Your task to perform on an android device: turn on the 12-hour format for clock Image 0: 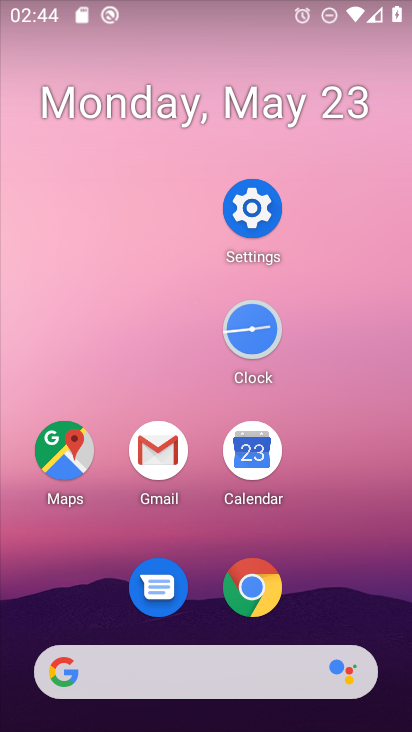
Step 0: drag from (358, 618) to (297, 282)
Your task to perform on an android device: turn on the 12-hour format for clock Image 1: 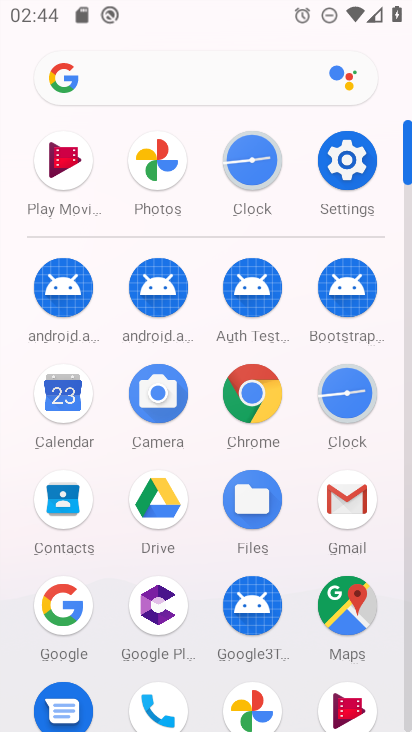
Step 1: click (234, 153)
Your task to perform on an android device: turn on the 12-hour format for clock Image 2: 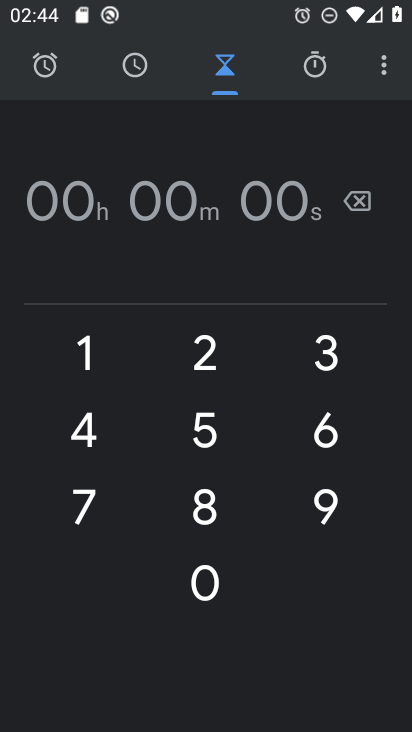
Step 2: click (376, 59)
Your task to perform on an android device: turn on the 12-hour format for clock Image 3: 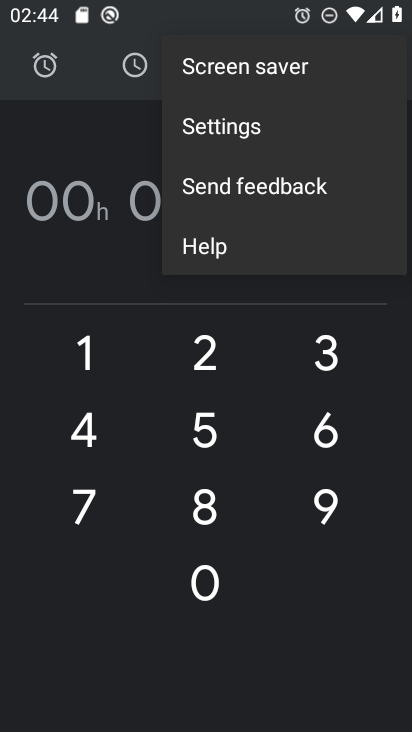
Step 3: click (239, 145)
Your task to perform on an android device: turn on the 12-hour format for clock Image 4: 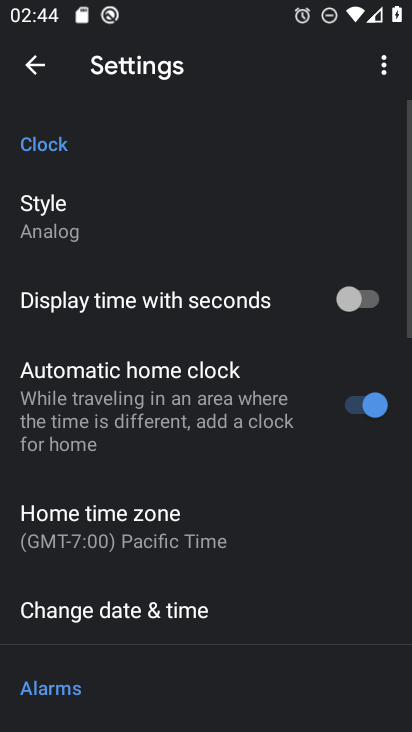
Step 4: click (129, 638)
Your task to perform on an android device: turn on the 12-hour format for clock Image 5: 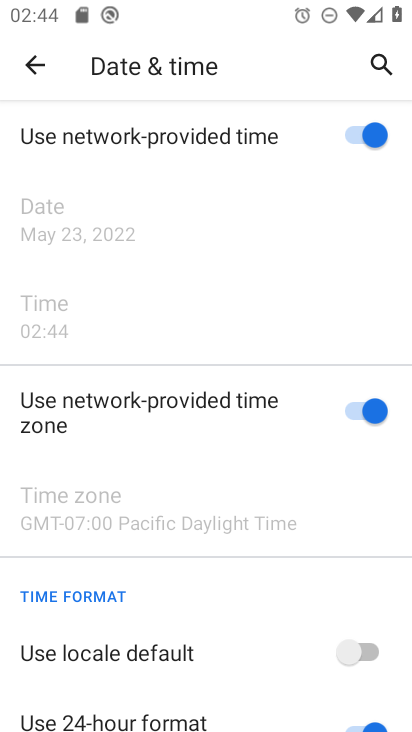
Step 5: drag from (288, 631) to (291, 249)
Your task to perform on an android device: turn on the 12-hour format for clock Image 6: 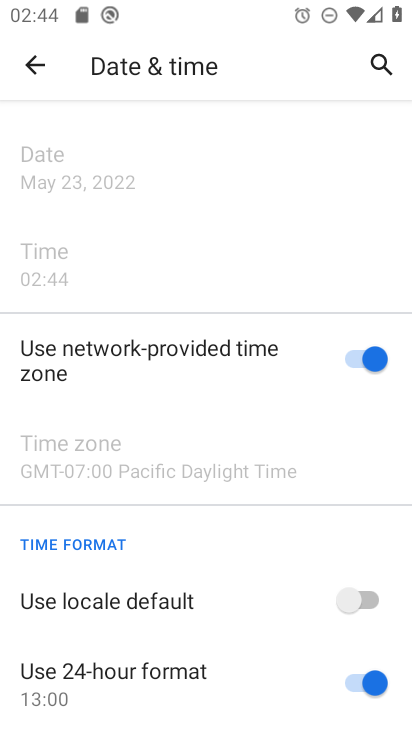
Step 6: click (358, 656)
Your task to perform on an android device: turn on the 12-hour format for clock Image 7: 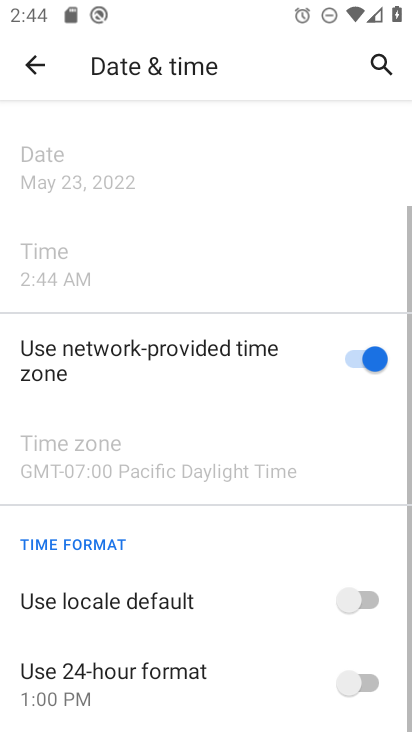
Step 7: task complete